Your task to perform on an android device: check data usage Image 0: 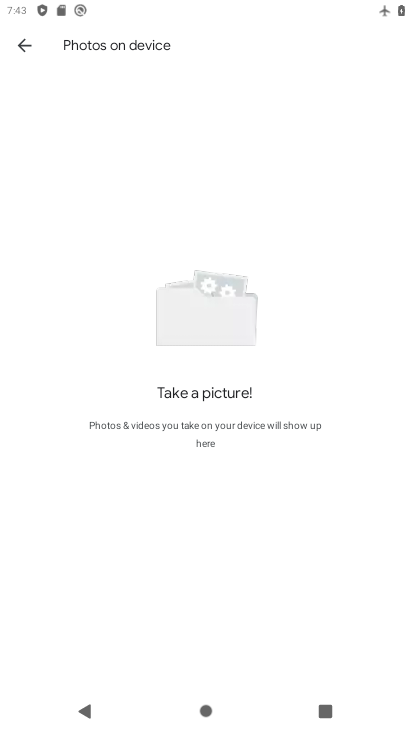
Step 0: press home button
Your task to perform on an android device: check data usage Image 1: 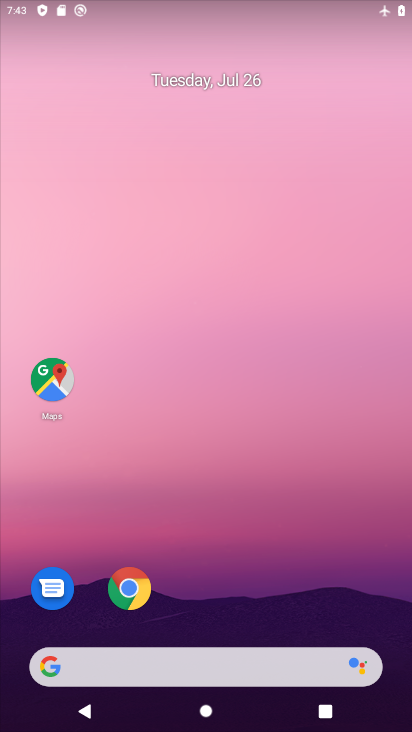
Step 1: drag from (224, 652) to (225, 92)
Your task to perform on an android device: check data usage Image 2: 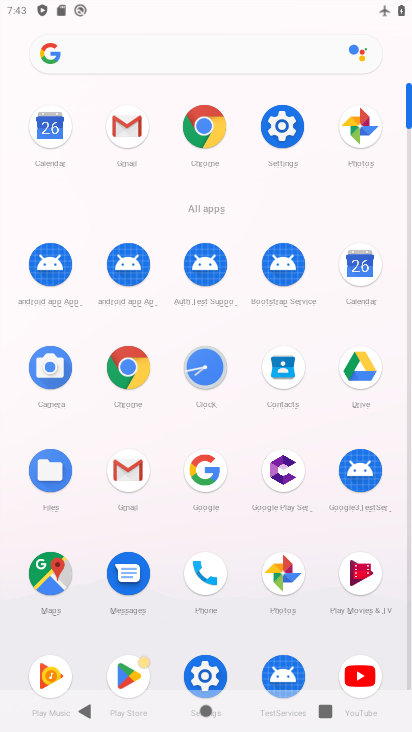
Step 2: click (274, 135)
Your task to perform on an android device: check data usage Image 3: 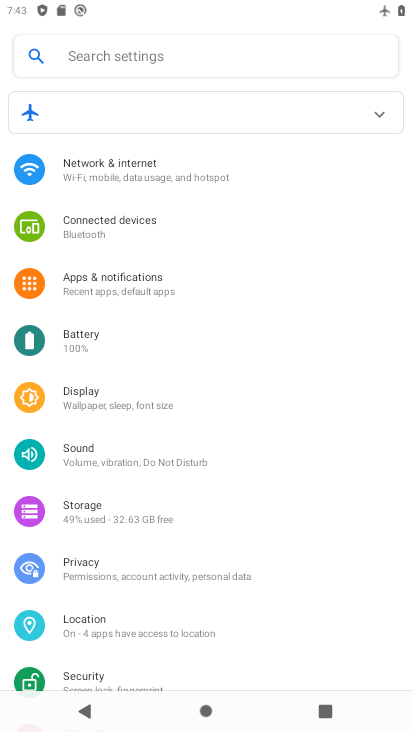
Step 3: click (120, 174)
Your task to perform on an android device: check data usage Image 4: 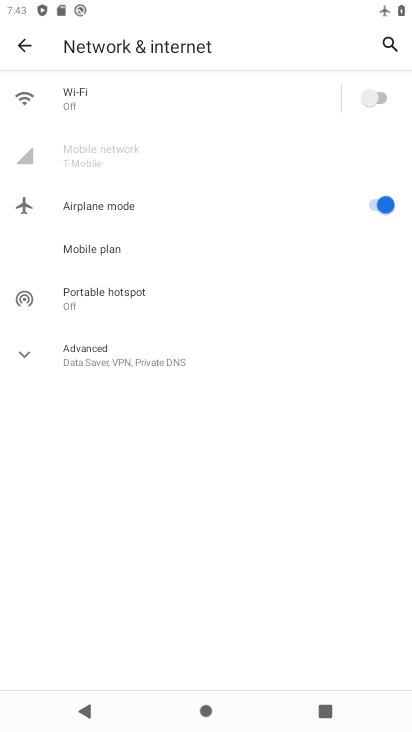
Step 4: click (376, 93)
Your task to perform on an android device: check data usage Image 5: 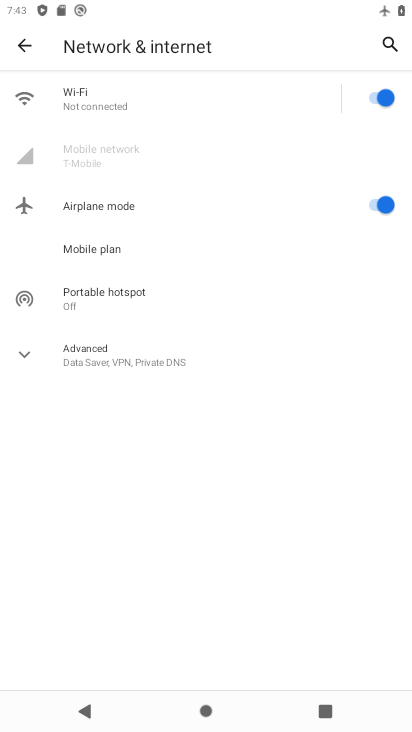
Step 5: click (362, 202)
Your task to perform on an android device: check data usage Image 6: 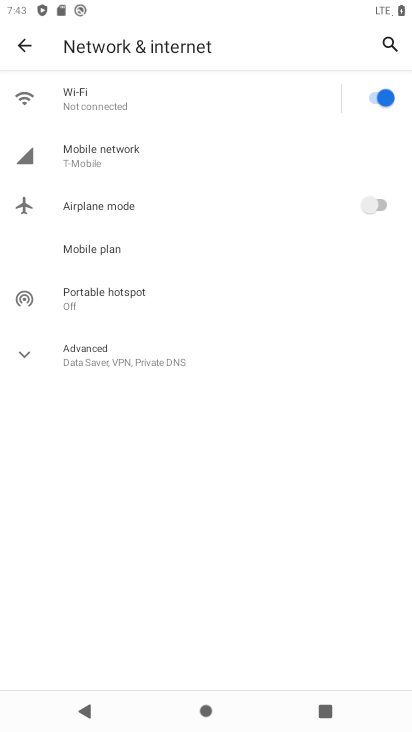
Step 6: click (111, 149)
Your task to perform on an android device: check data usage Image 7: 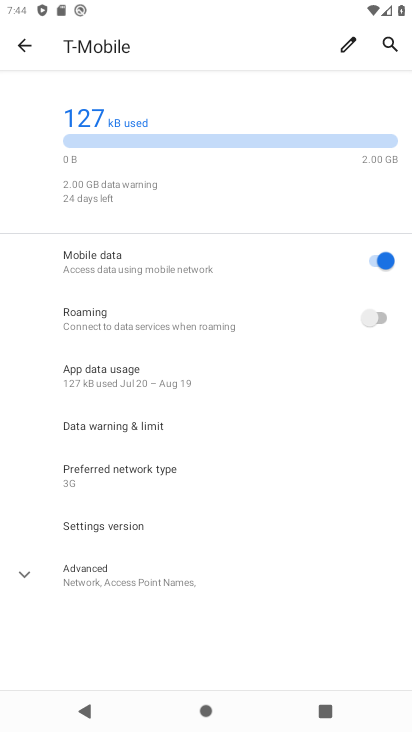
Step 7: click (117, 574)
Your task to perform on an android device: check data usage Image 8: 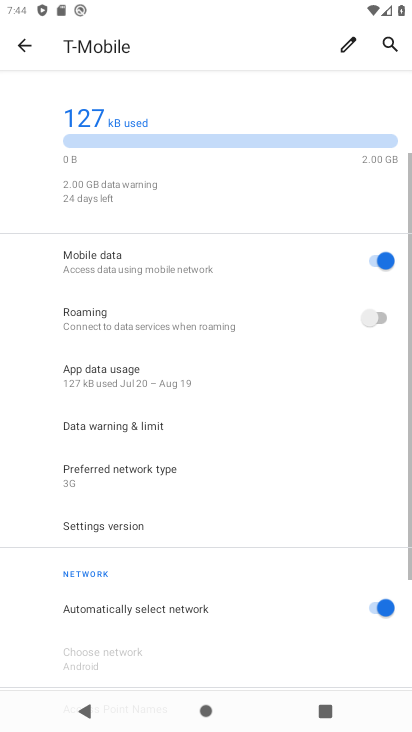
Step 8: task complete